Your task to perform on an android device: move an email to a new category in the gmail app Image 0: 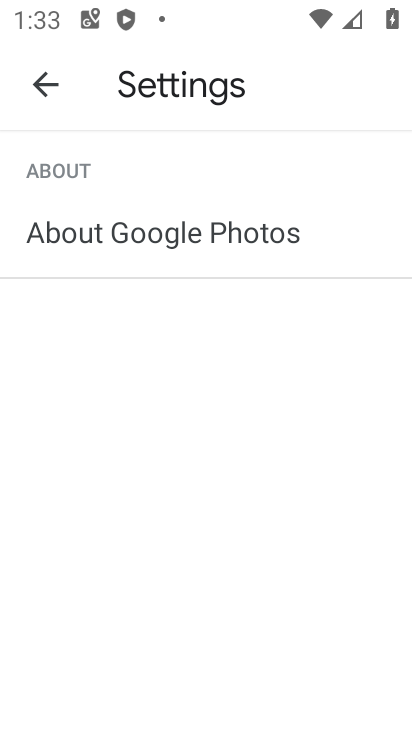
Step 0: press home button
Your task to perform on an android device: move an email to a new category in the gmail app Image 1: 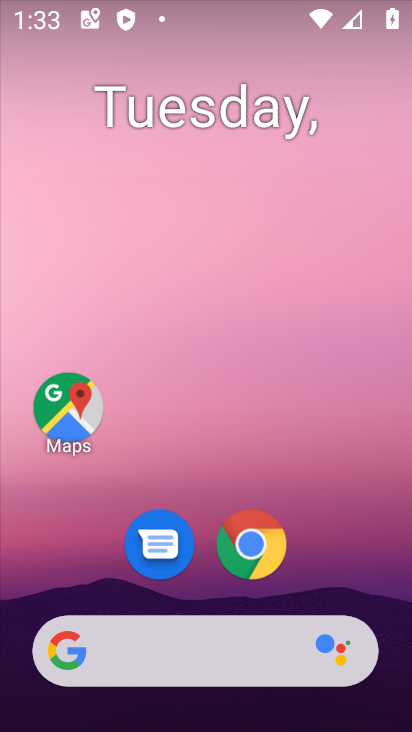
Step 1: drag from (403, 643) to (278, 126)
Your task to perform on an android device: move an email to a new category in the gmail app Image 2: 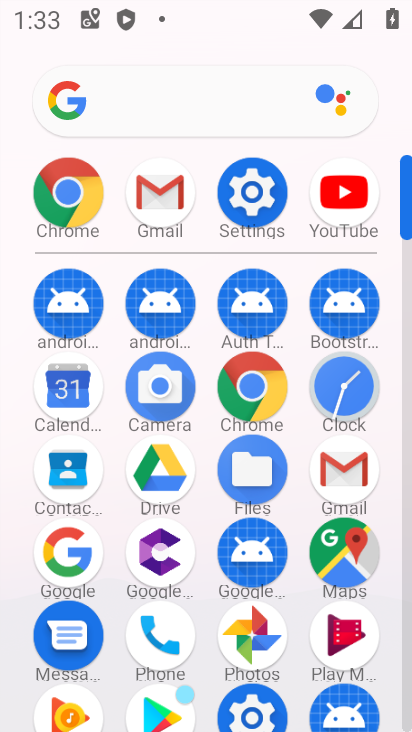
Step 2: click (406, 678)
Your task to perform on an android device: move an email to a new category in the gmail app Image 3: 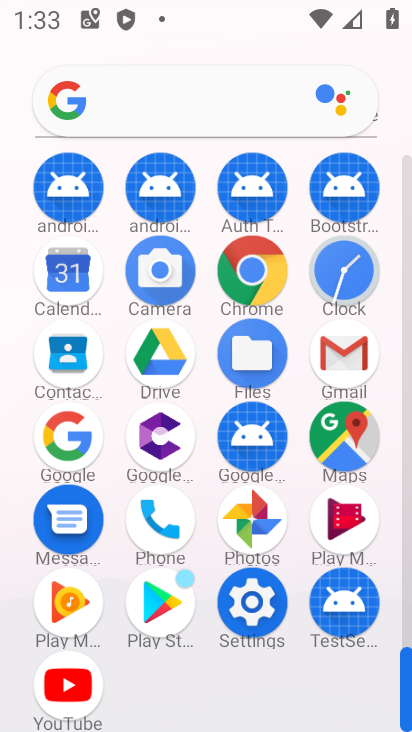
Step 3: click (341, 352)
Your task to perform on an android device: move an email to a new category in the gmail app Image 4: 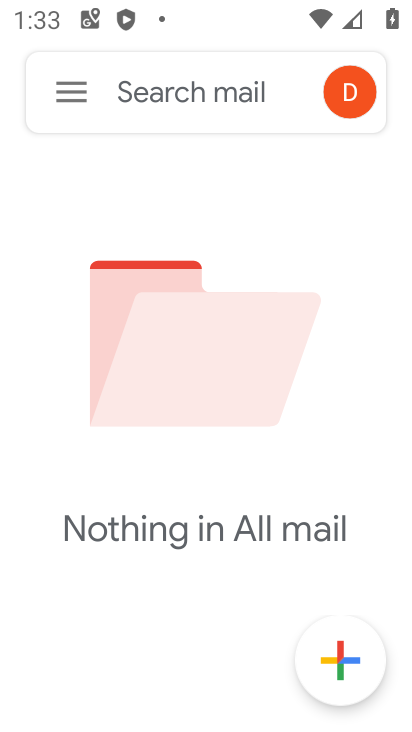
Step 4: click (65, 90)
Your task to perform on an android device: move an email to a new category in the gmail app Image 5: 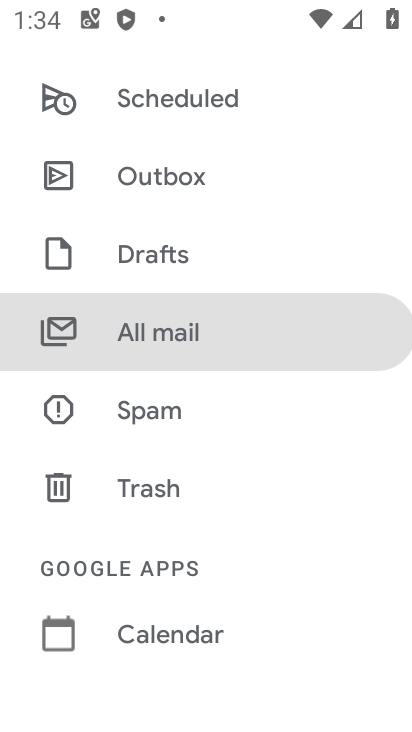
Step 5: click (170, 320)
Your task to perform on an android device: move an email to a new category in the gmail app Image 6: 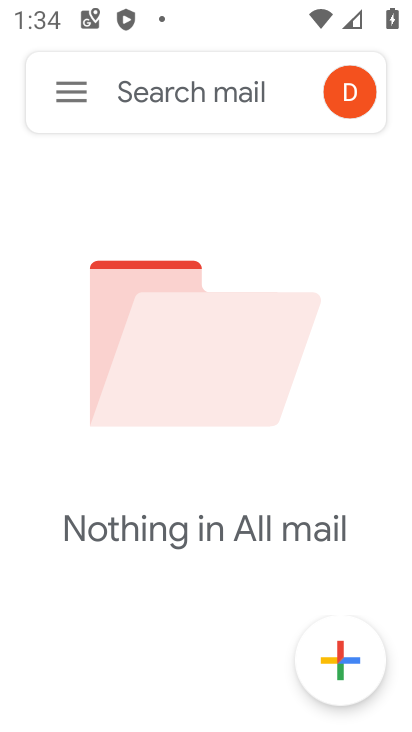
Step 6: task complete